Your task to perform on an android device: Open accessibility settings Image 0: 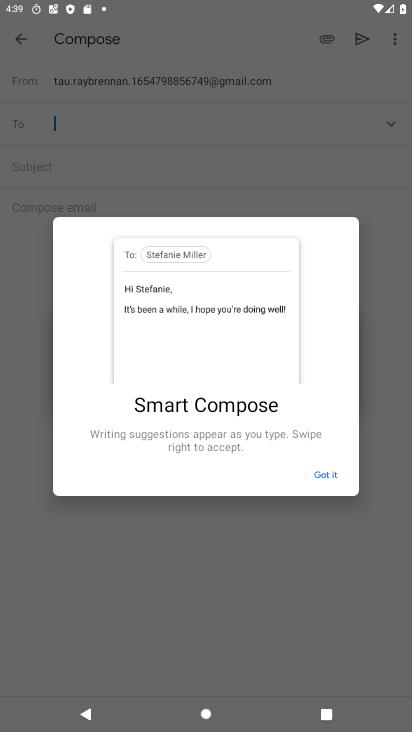
Step 0: press home button
Your task to perform on an android device: Open accessibility settings Image 1: 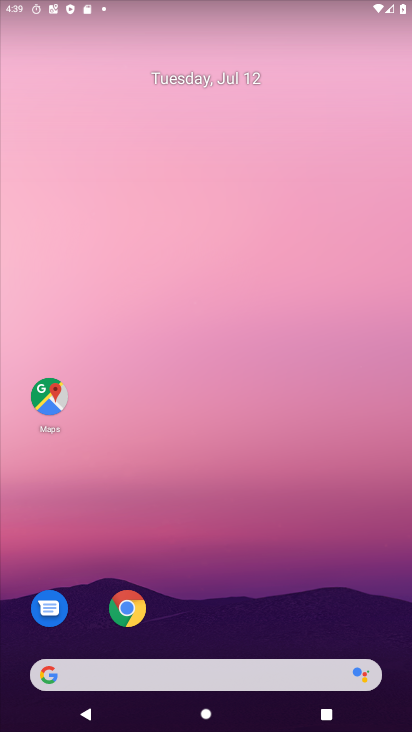
Step 1: drag from (257, 649) to (262, 162)
Your task to perform on an android device: Open accessibility settings Image 2: 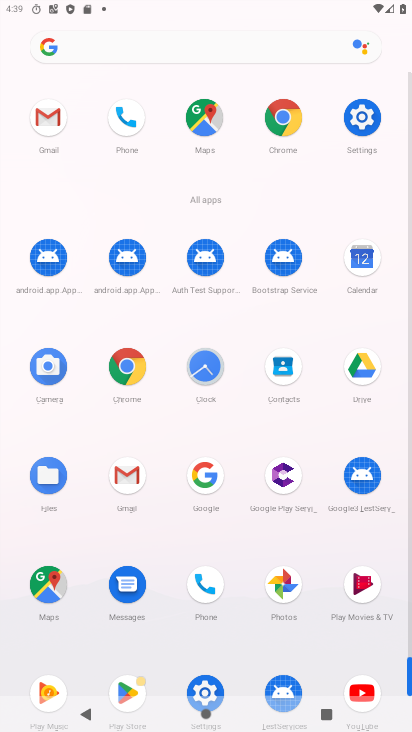
Step 2: click (367, 125)
Your task to perform on an android device: Open accessibility settings Image 3: 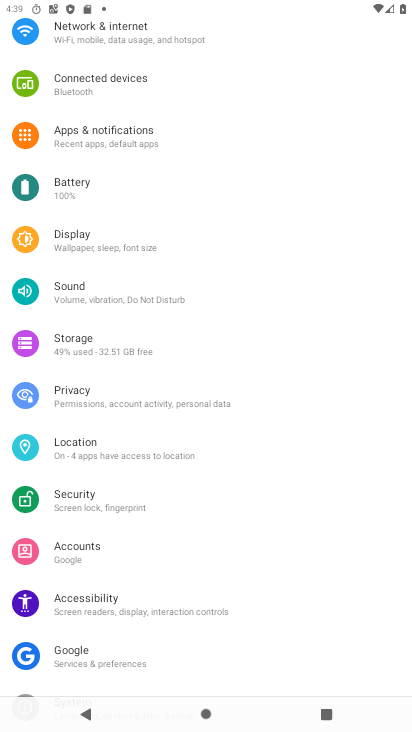
Step 3: click (152, 604)
Your task to perform on an android device: Open accessibility settings Image 4: 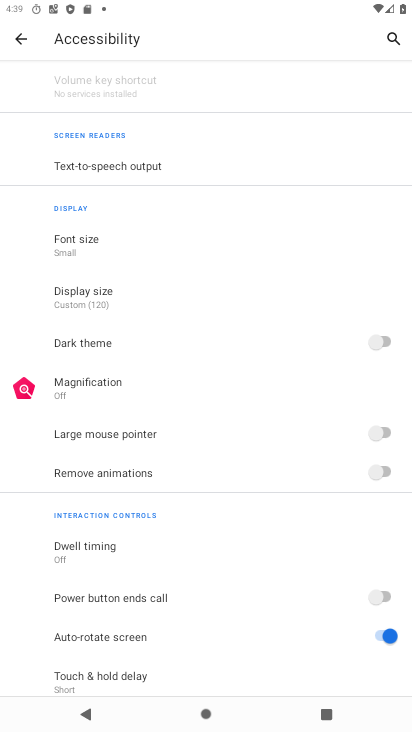
Step 4: task complete